Your task to perform on an android device: turn on wifi Image 0: 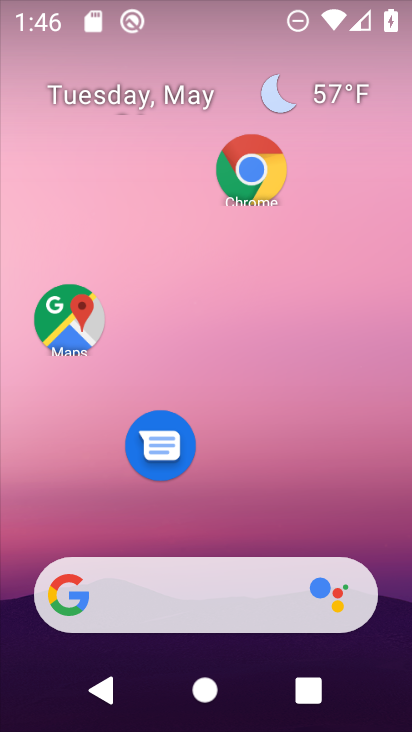
Step 0: drag from (219, 715) to (229, 245)
Your task to perform on an android device: turn on wifi Image 1: 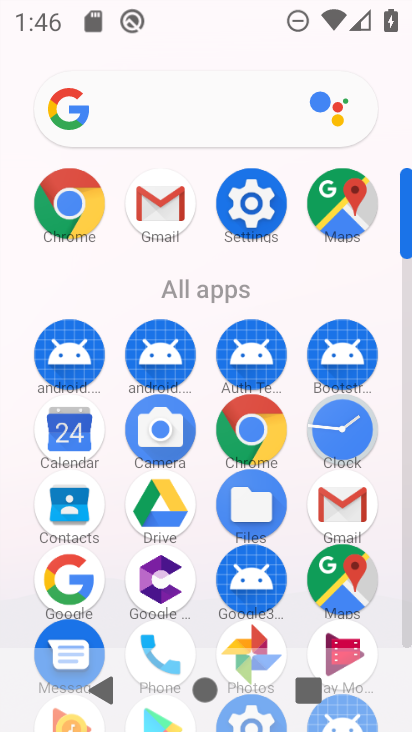
Step 1: click (251, 201)
Your task to perform on an android device: turn on wifi Image 2: 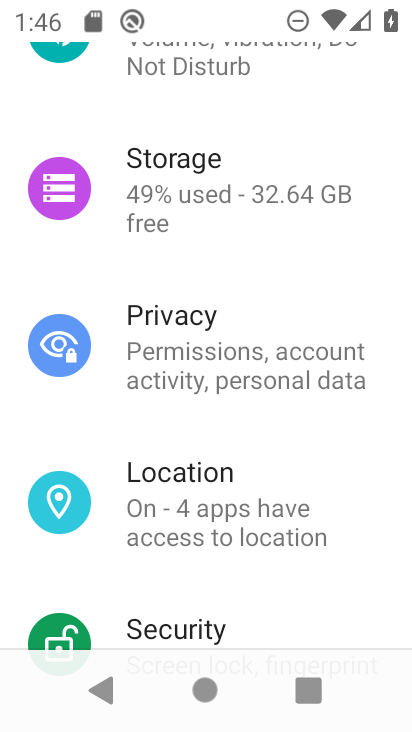
Step 2: drag from (245, 162) to (248, 440)
Your task to perform on an android device: turn on wifi Image 3: 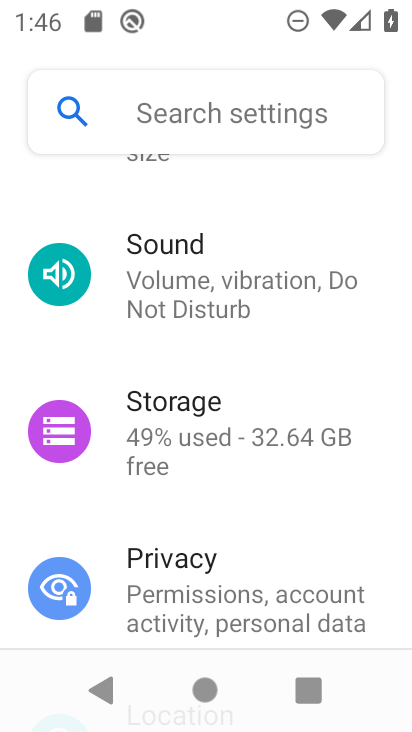
Step 3: drag from (257, 207) to (248, 560)
Your task to perform on an android device: turn on wifi Image 4: 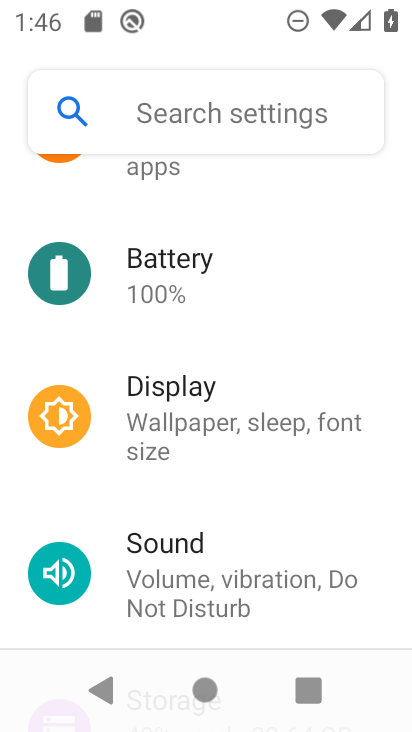
Step 4: drag from (226, 197) to (246, 652)
Your task to perform on an android device: turn on wifi Image 5: 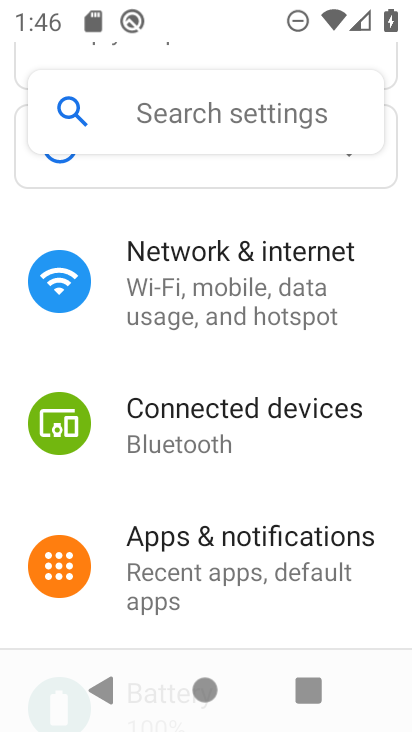
Step 5: click (189, 306)
Your task to perform on an android device: turn on wifi Image 6: 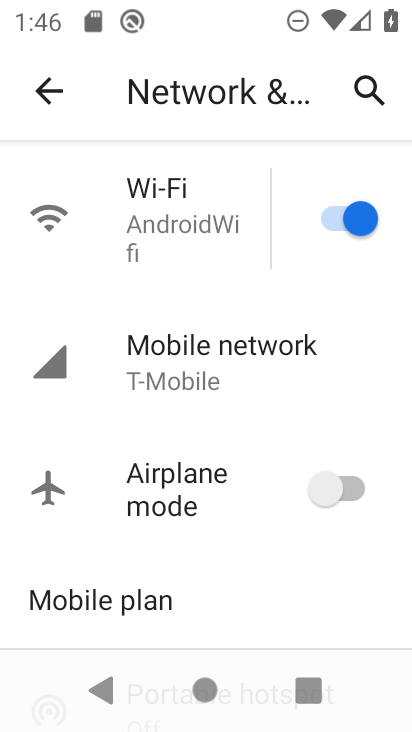
Step 6: task complete